Your task to perform on an android device: search for starred emails in the gmail app Image 0: 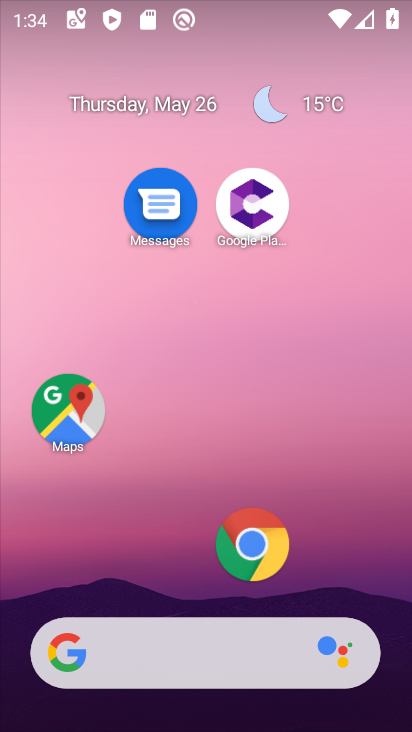
Step 0: drag from (121, 602) to (166, 101)
Your task to perform on an android device: search for starred emails in the gmail app Image 1: 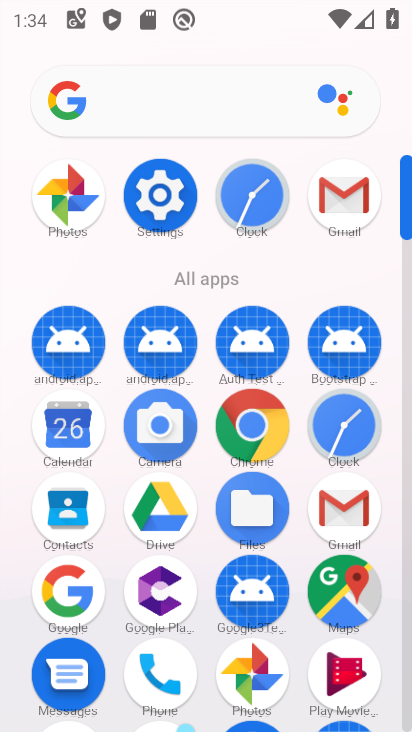
Step 1: click (350, 499)
Your task to perform on an android device: search for starred emails in the gmail app Image 2: 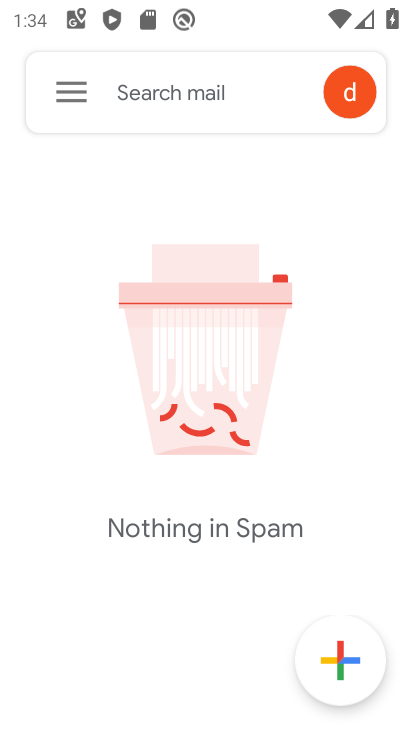
Step 2: click (70, 110)
Your task to perform on an android device: search for starred emails in the gmail app Image 3: 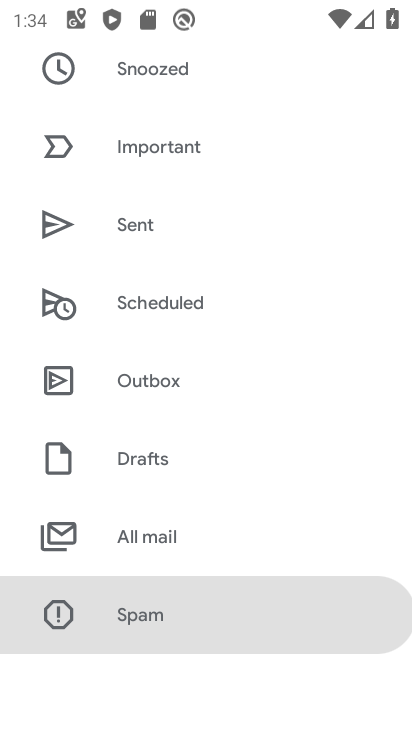
Step 3: drag from (153, 100) to (125, 542)
Your task to perform on an android device: search for starred emails in the gmail app Image 4: 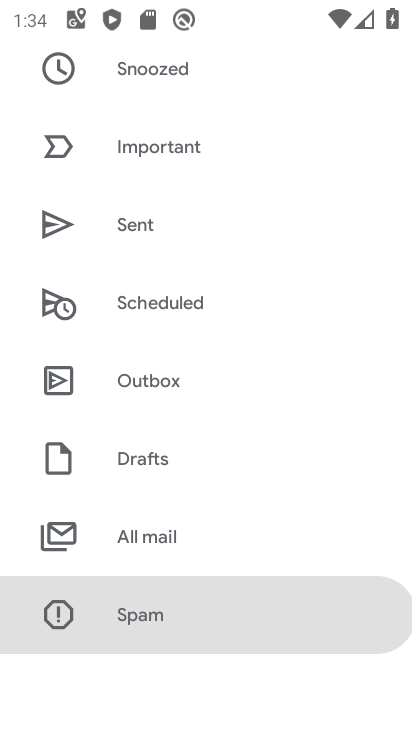
Step 4: drag from (229, 106) to (196, 680)
Your task to perform on an android device: search for starred emails in the gmail app Image 5: 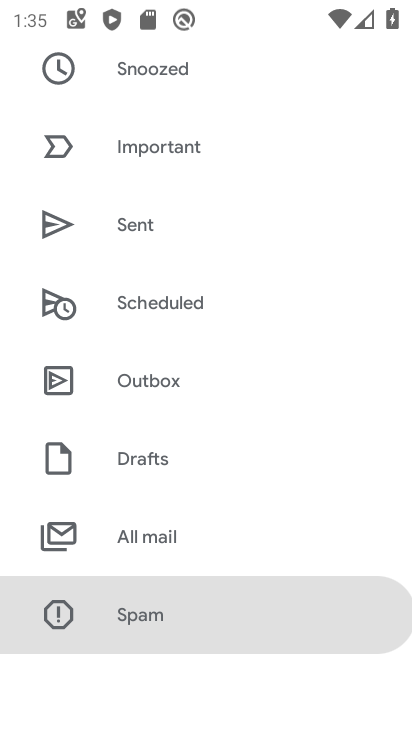
Step 5: drag from (219, 85) to (223, 584)
Your task to perform on an android device: search for starred emails in the gmail app Image 6: 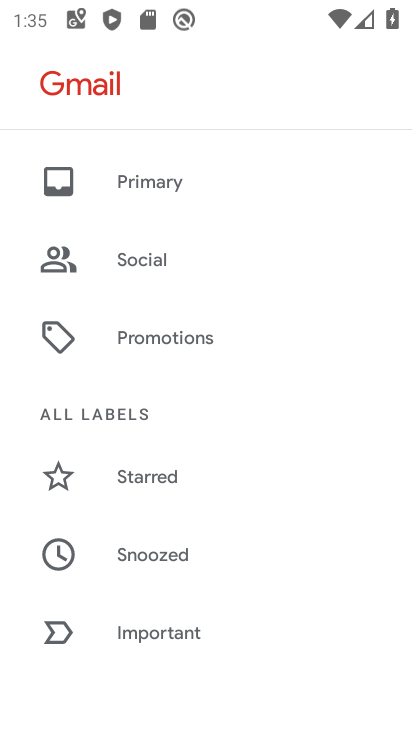
Step 6: drag from (149, 110) to (73, 580)
Your task to perform on an android device: search for starred emails in the gmail app Image 7: 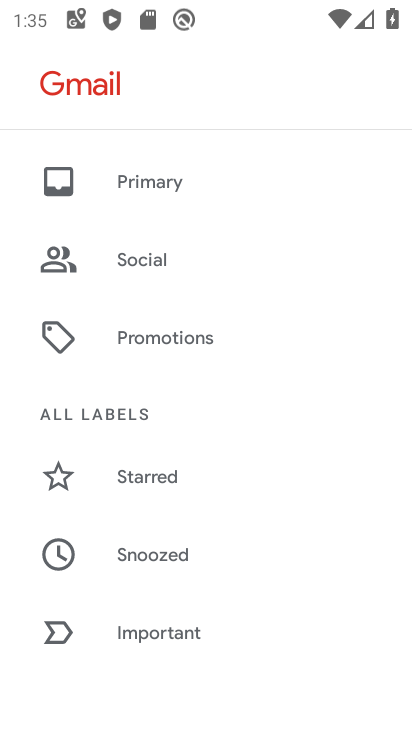
Step 7: click (138, 492)
Your task to perform on an android device: search for starred emails in the gmail app Image 8: 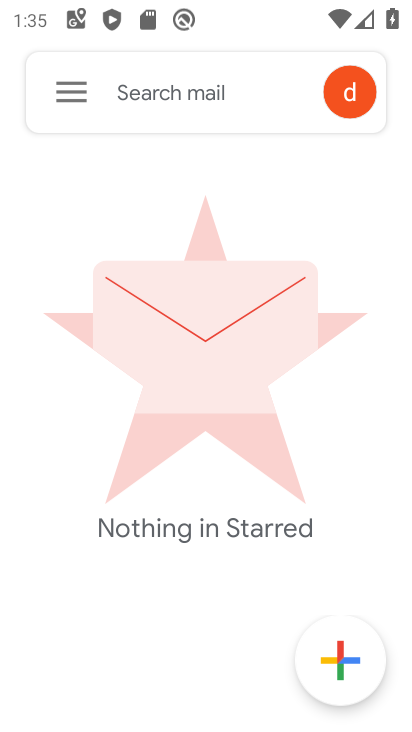
Step 8: task complete